Your task to perform on an android device: Open display settings Image 0: 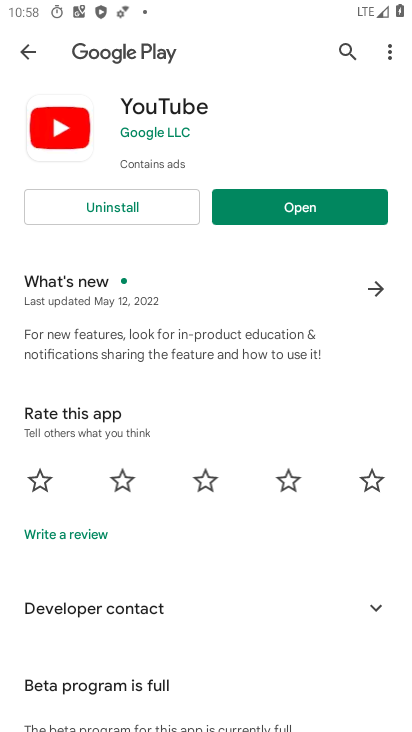
Step 0: press home button
Your task to perform on an android device: Open display settings Image 1: 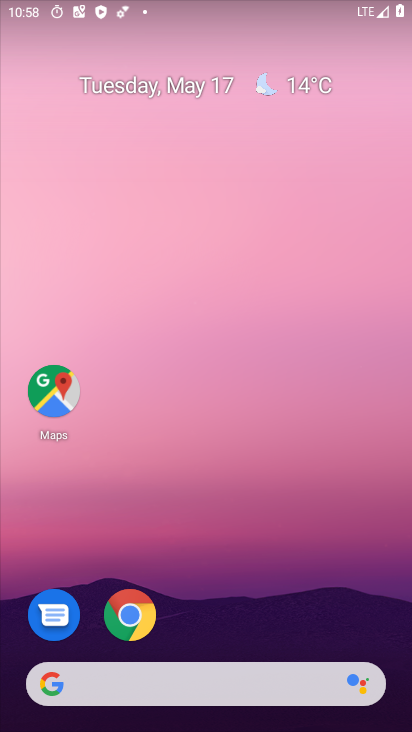
Step 1: drag from (164, 685) to (257, 94)
Your task to perform on an android device: Open display settings Image 2: 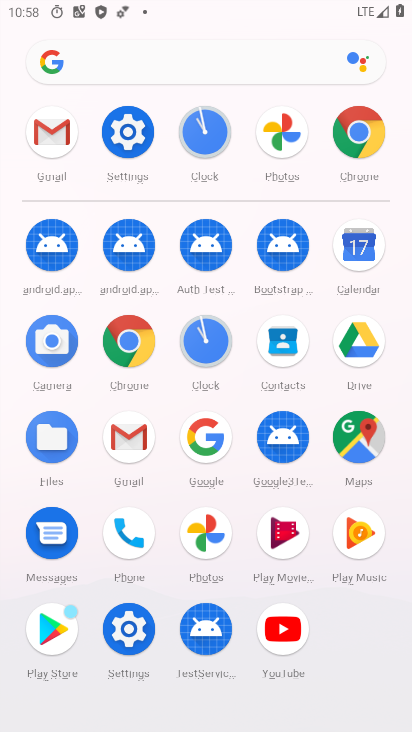
Step 2: click (125, 136)
Your task to perform on an android device: Open display settings Image 3: 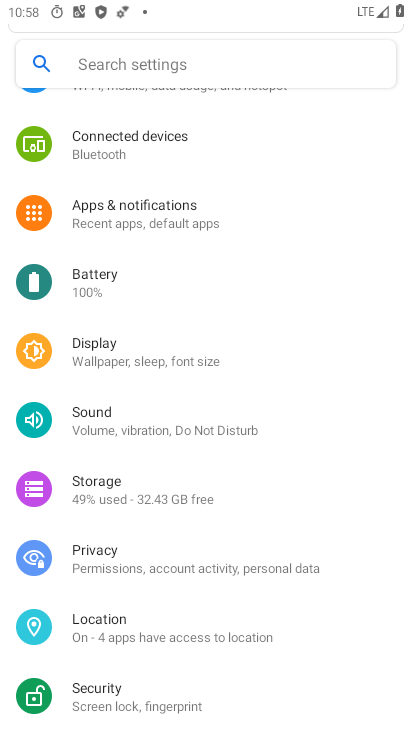
Step 3: click (157, 356)
Your task to perform on an android device: Open display settings Image 4: 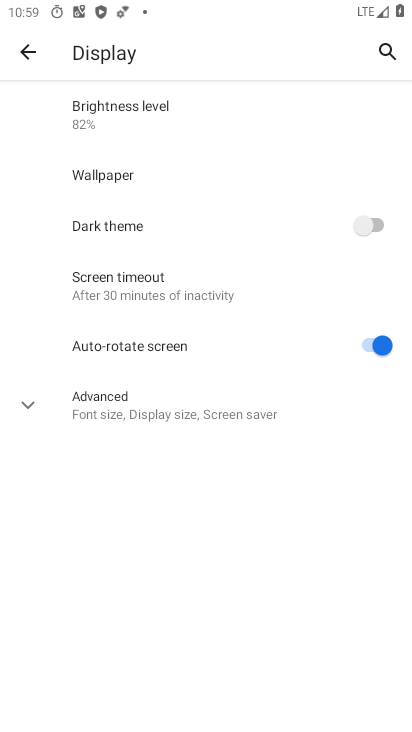
Step 4: task complete